Your task to perform on an android device: uninstall "Adobe Acrobat Reader: Edit PDF" Image 0: 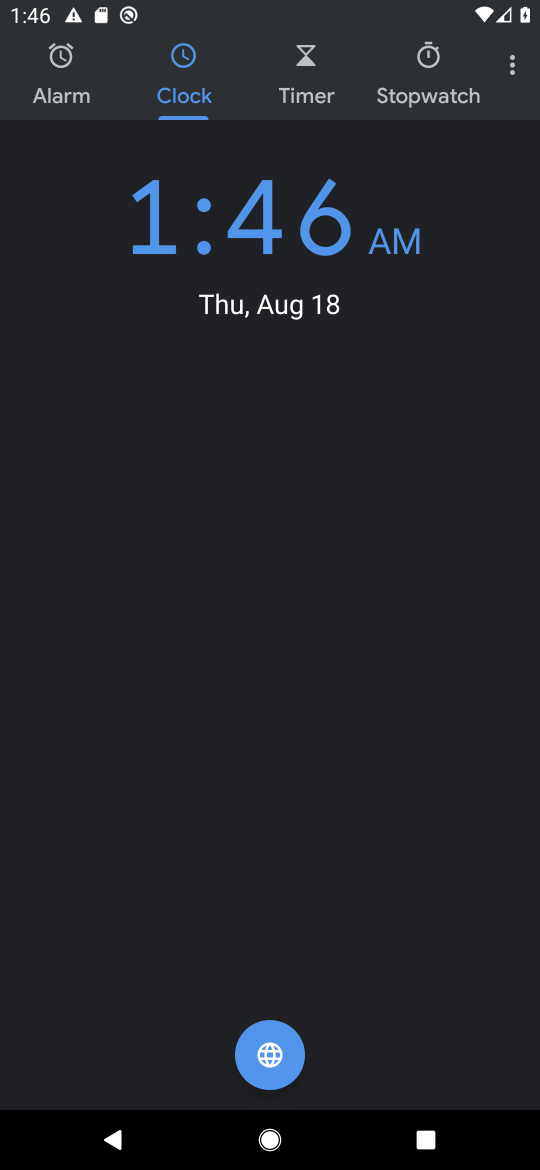
Step 0: press home button
Your task to perform on an android device: uninstall "Adobe Acrobat Reader: Edit PDF" Image 1: 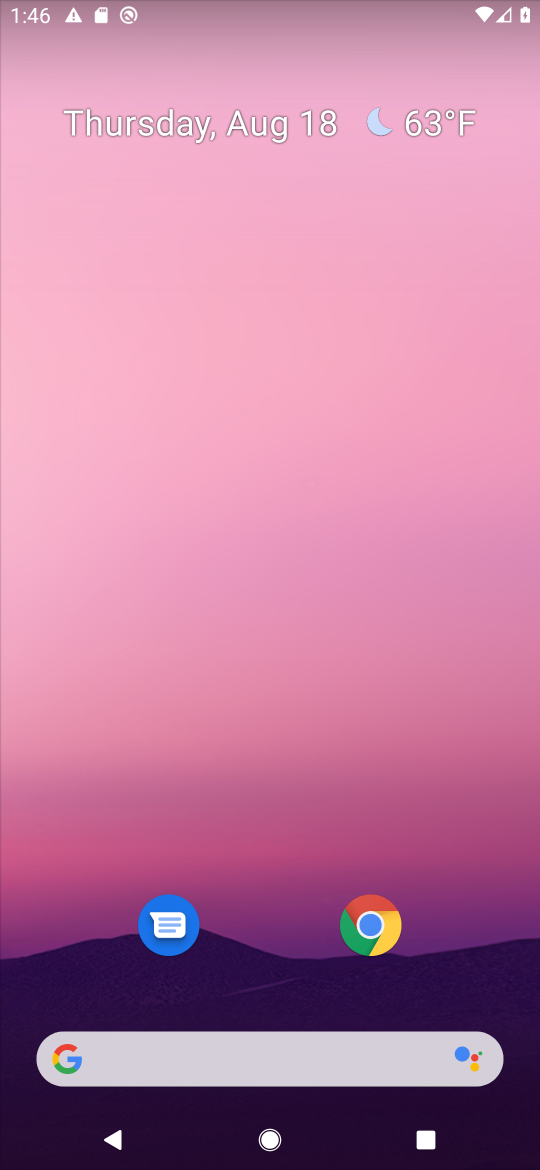
Step 1: drag from (245, 625) to (150, 88)
Your task to perform on an android device: uninstall "Adobe Acrobat Reader: Edit PDF" Image 2: 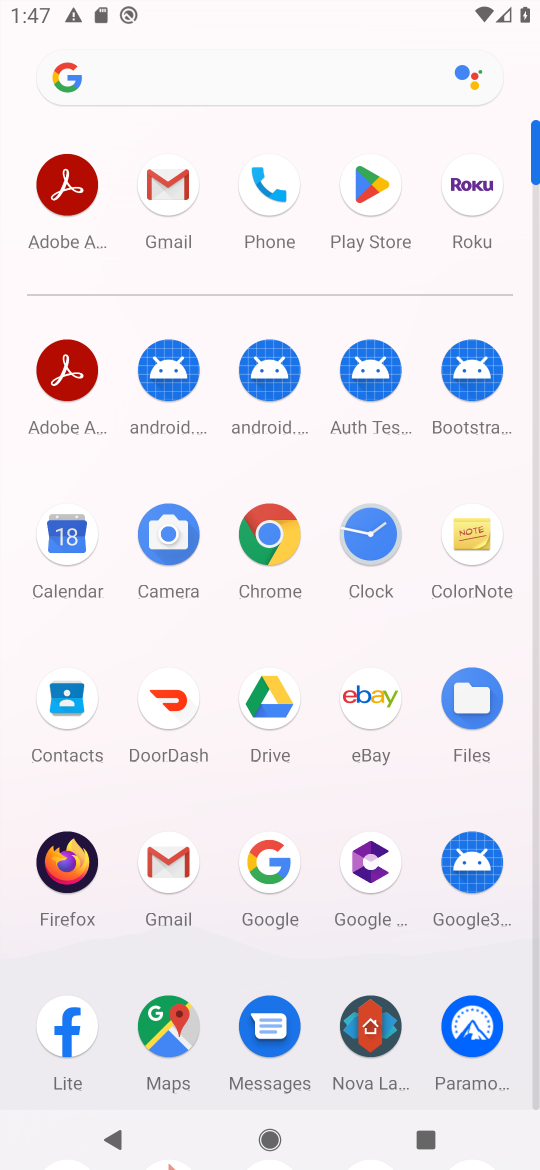
Step 2: click (360, 193)
Your task to perform on an android device: uninstall "Adobe Acrobat Reader: Edit PDF" Image 3: 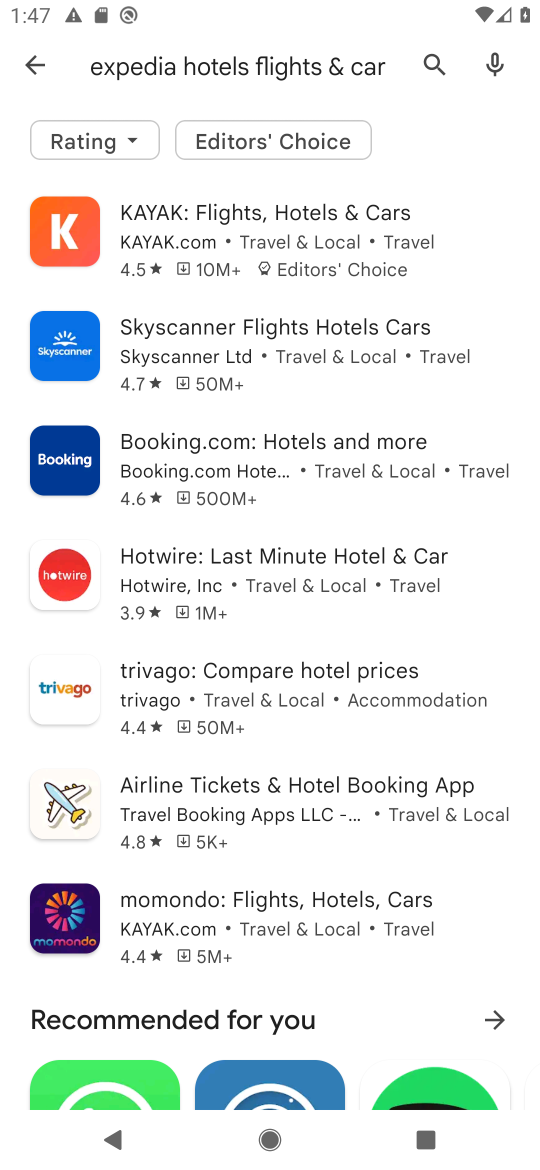
Step 3: click (40, 64)
Your task to perform on an android device: uninstall "Adobe Acrobat Reader: Edit PDF" Image 4: 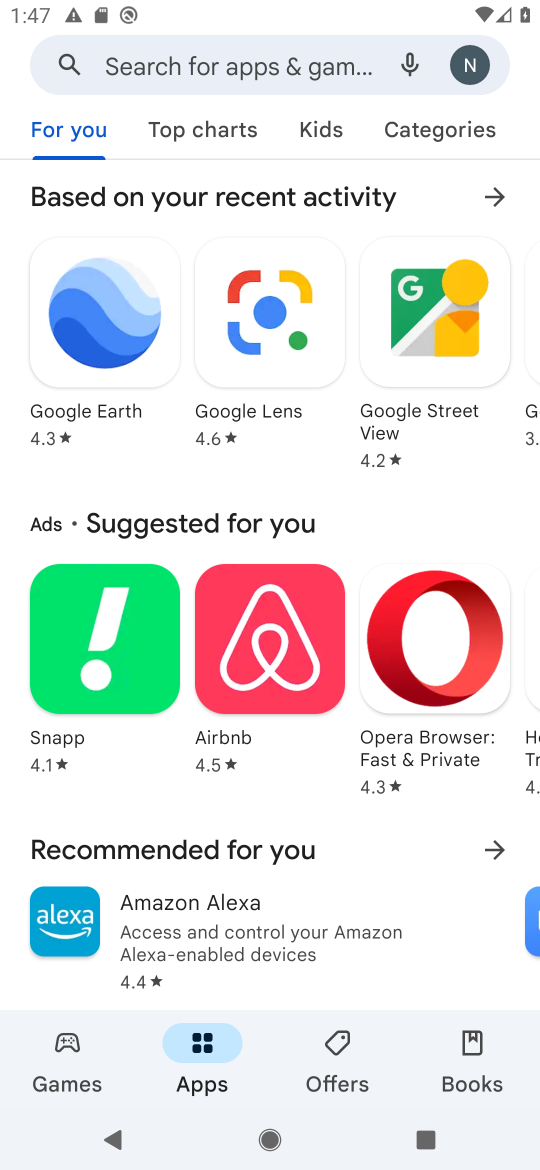
Step 4: click (170, 64)
Your task to perform on an android device: uninstall "Adobe Acrobat Reader: Edit PDF" Image 5: 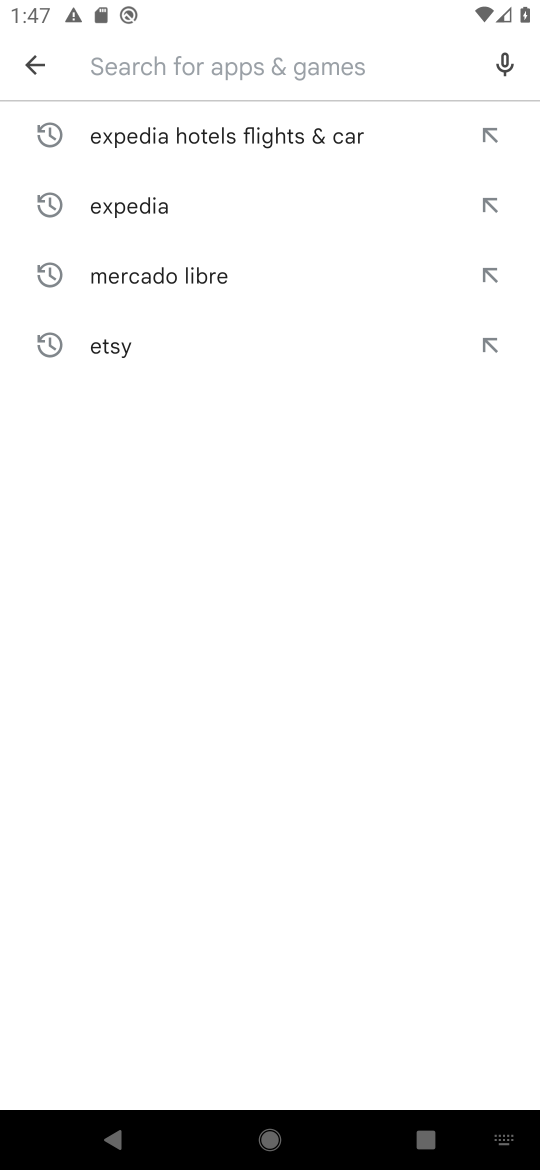
Step 5: type "Adobe Acrobat Reader: Edit PDF"
Your task to perform on an android device: uninstall "Adobe Acrobat Reader: Edit PDF" Image 6: 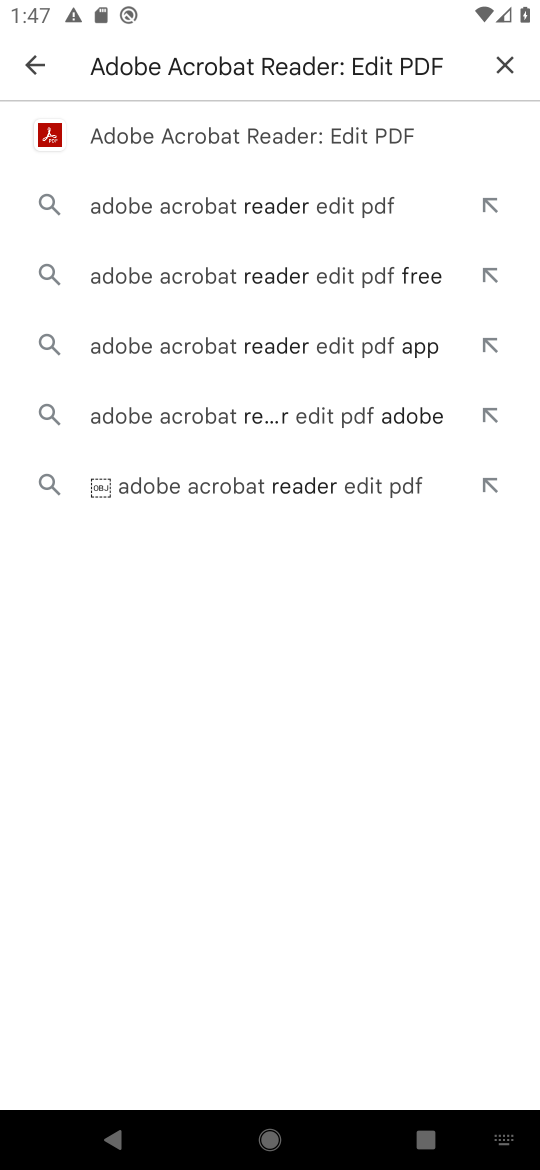
Step 6: click (267, 138)
Your task to perform on an android device: uninstall "Adobe Acrobat Reader: Edit PDF" Image 7: 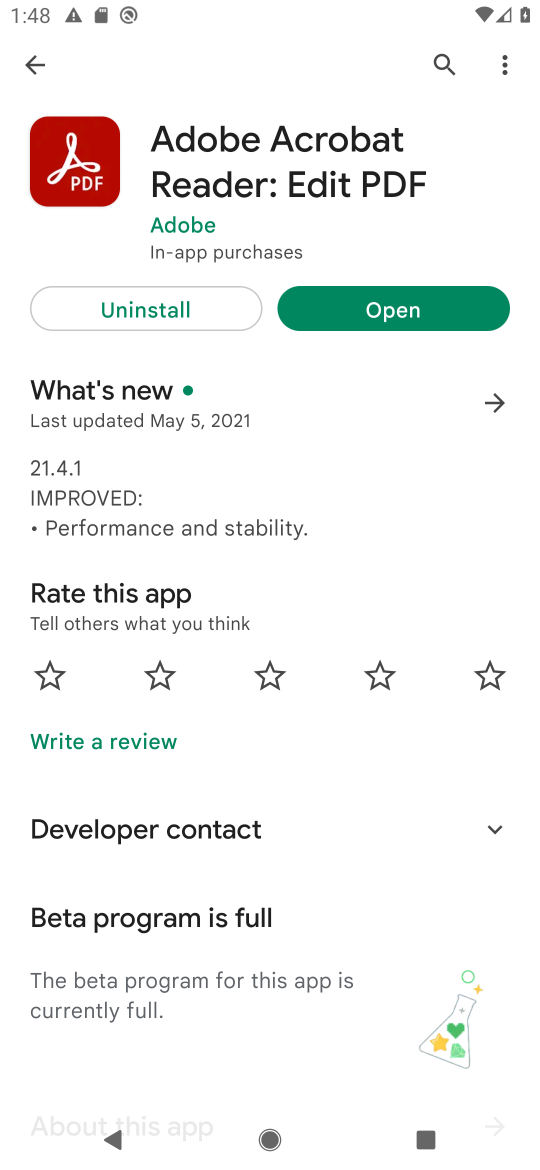
Step 7: click (134, 293)
Your task to perform on an android device: uninstall "Adobe Acrobat Reader: Edit PDF" Image 8: 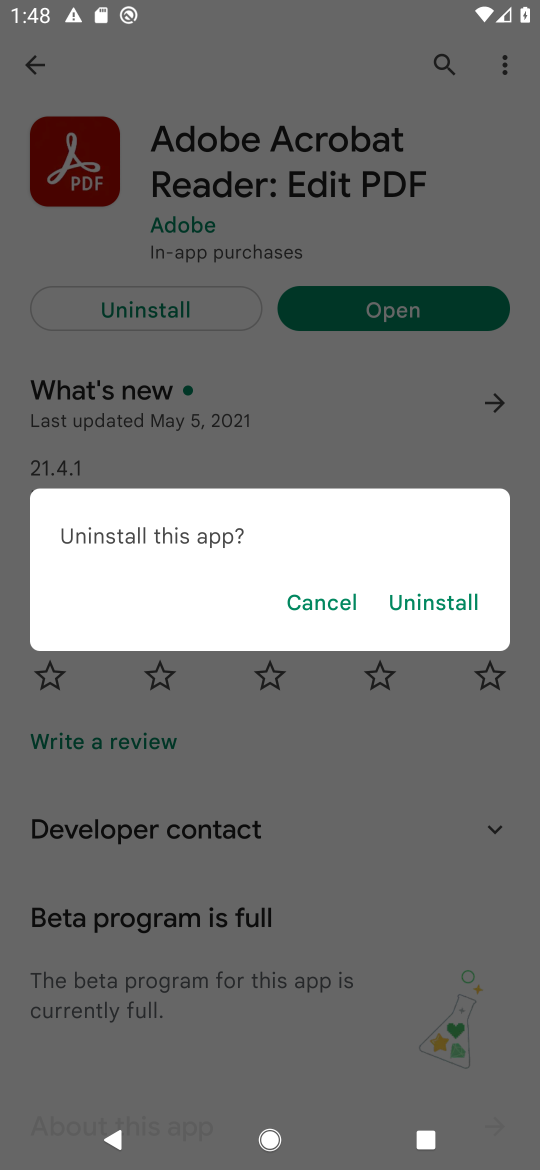
Step 8: click (454, 598)
Your task to perform on an android device: uninstall "Adobe Acrobat Reader: Edit PDF" Image 9: 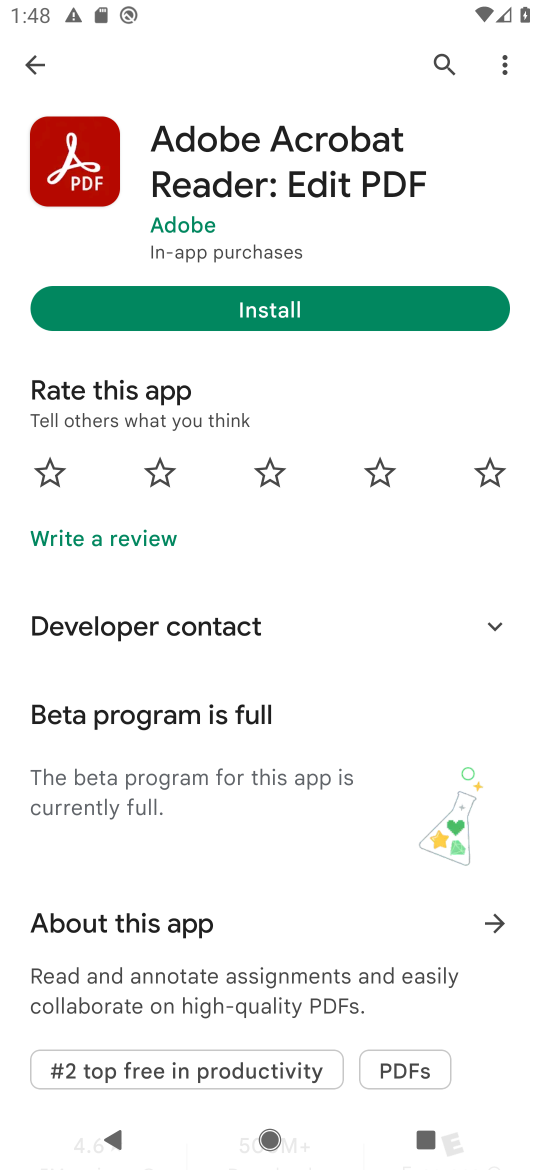
Step 9: task complete